Your task to perform on an android device: Search for logitech g910 on target.com, select the first entry, and add it to the cart. Image 0: 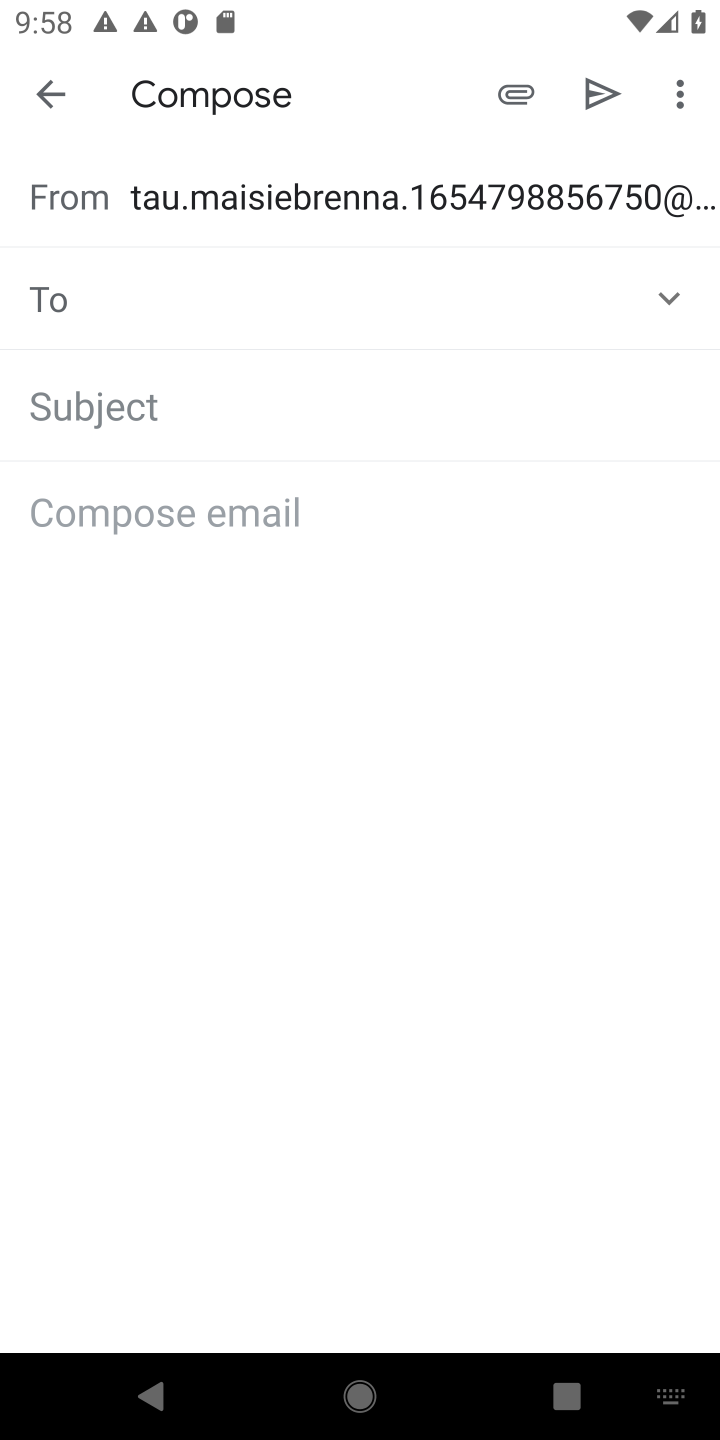
Step 0: press home button
Your task to perform on an android device: Search for logitech g910 on target.com, select the first entry, and add it to the cart. Image 1: 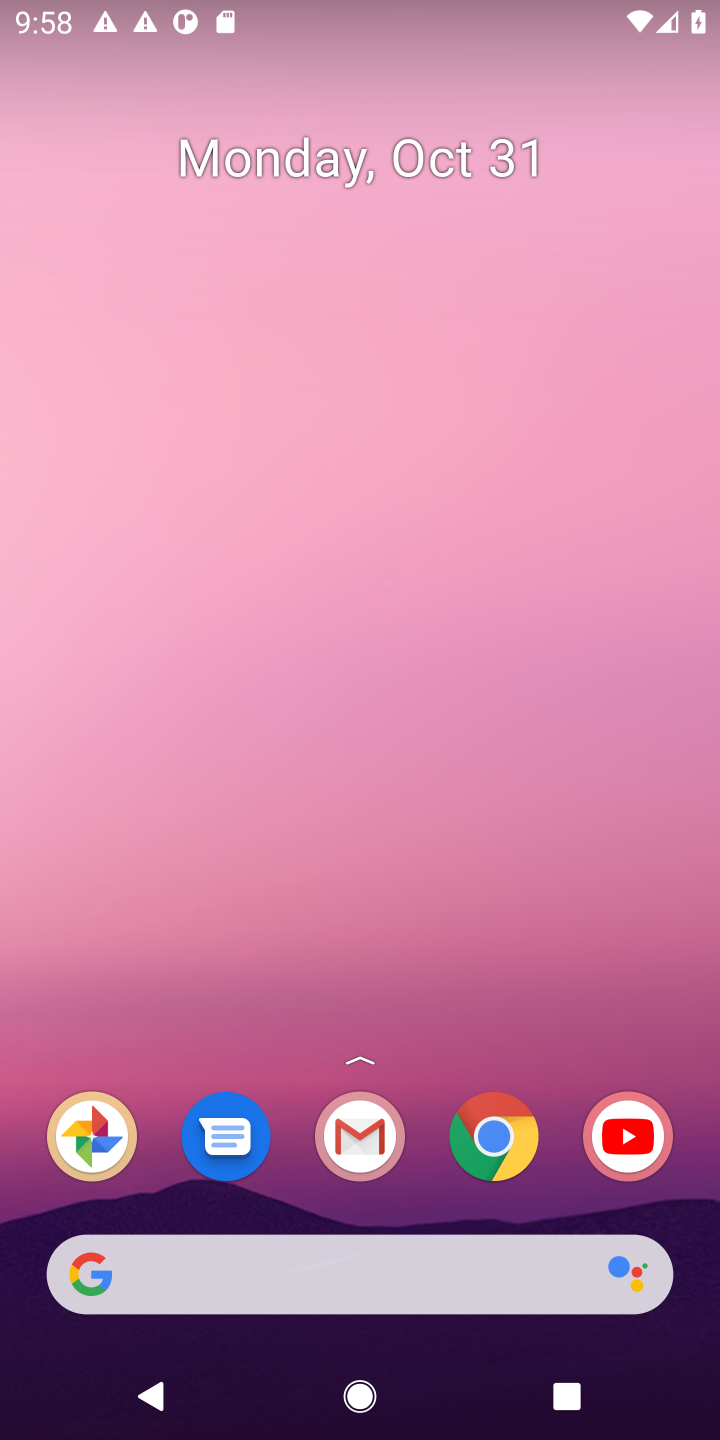
Step 1: click (150, 1269)
Your task to perform on an android device: Search for logitech g910 on target.com, select the first entry, and add it to the cart. Image 2: 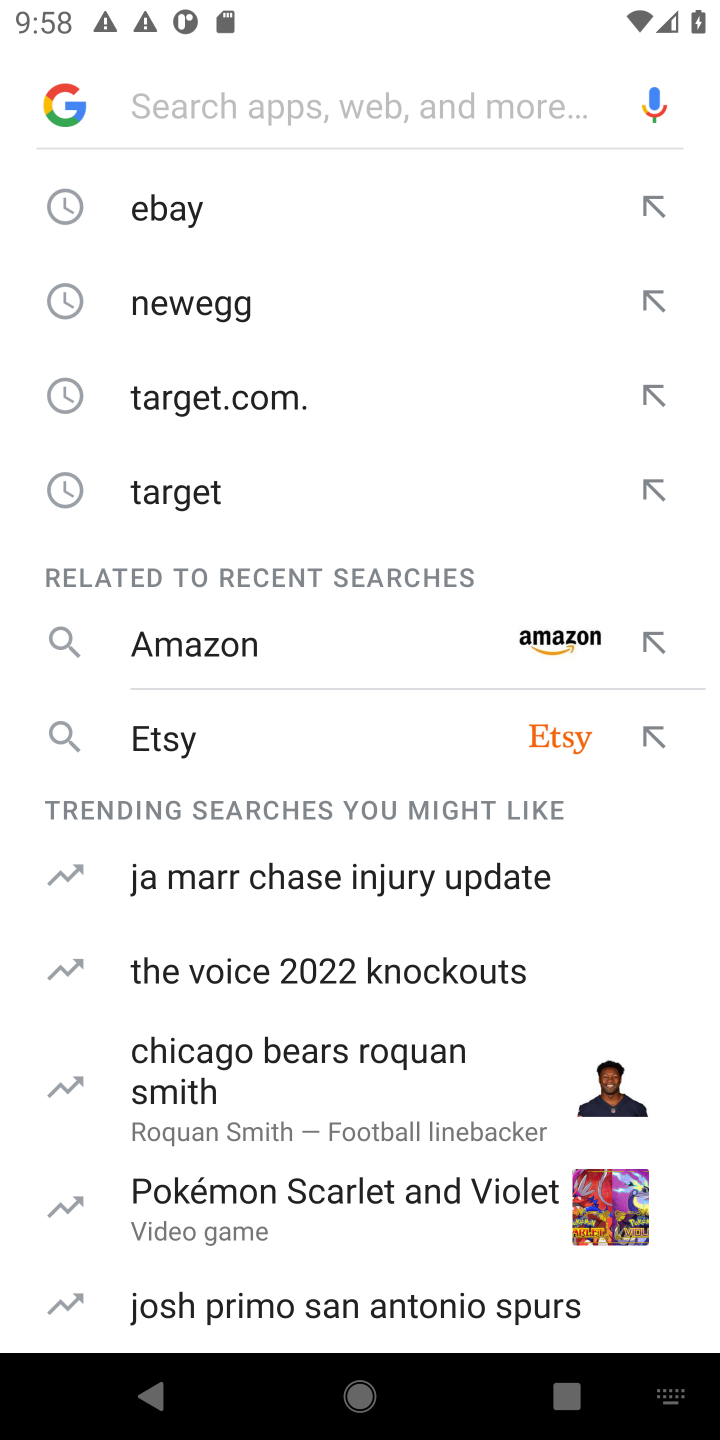
Step 2: type "target.com"
Your task to perform on an android device: Search for logitech g910 on target.com, select the first entry, and add it to the cart. Image 3: 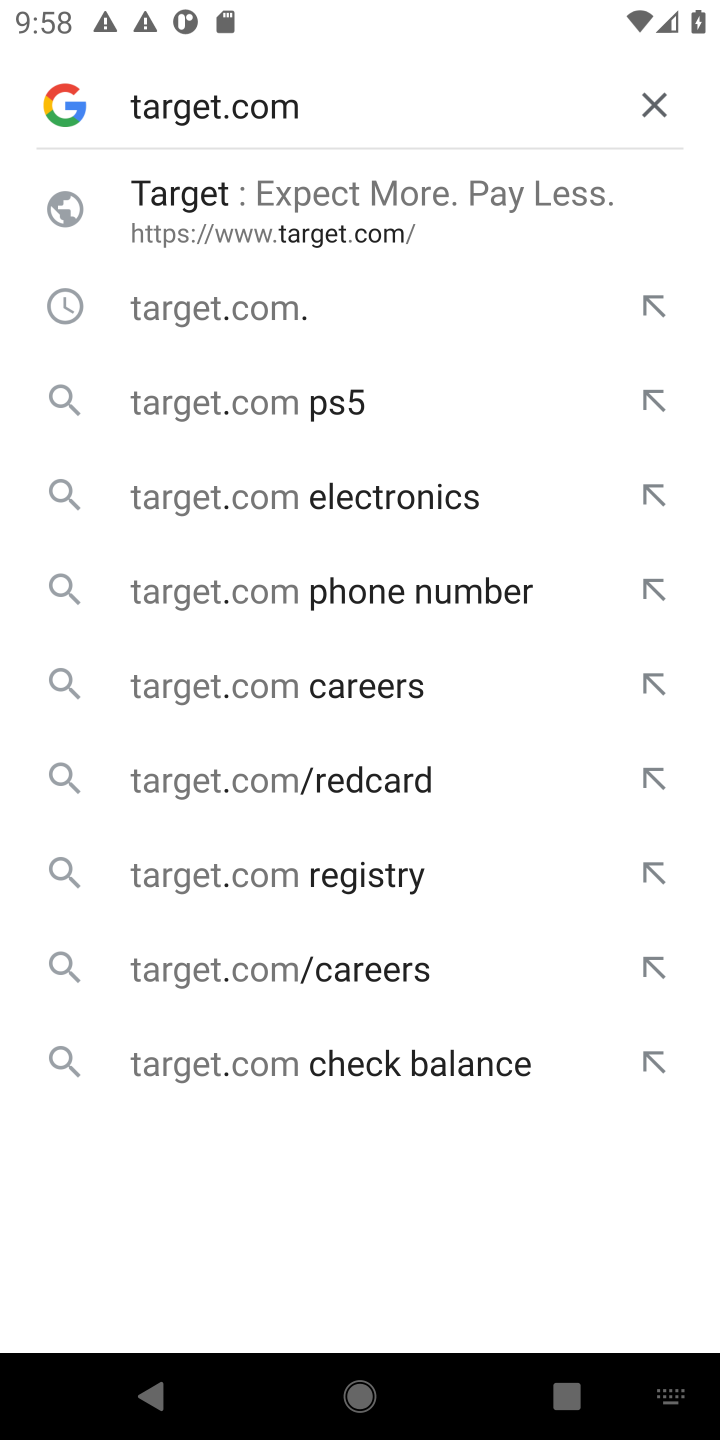
Step 3: press enter
Your task to perform on an android device: Search for logitech g910 on target.com, select the first entry, and add it to the cart. Image 4: 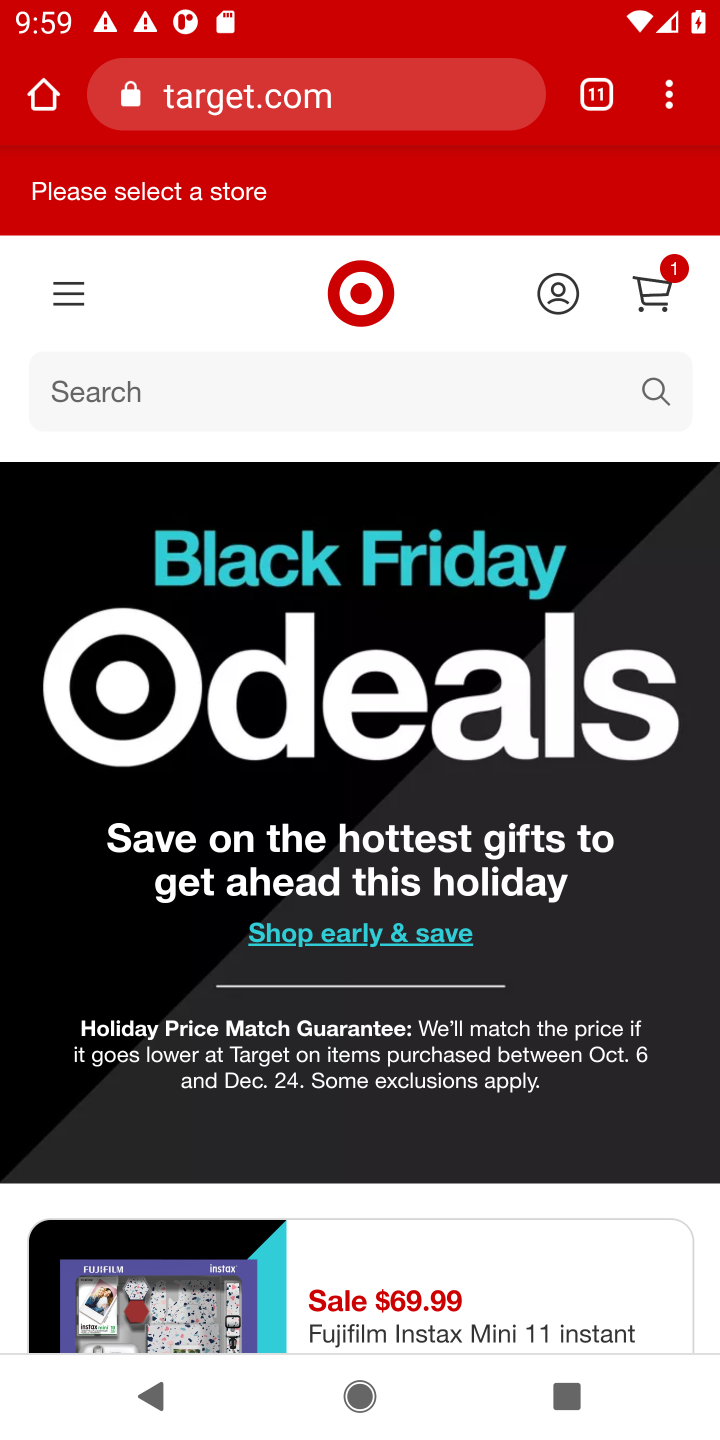
Step 4: click (120, 383)
Your task to perform on an android device: Search for logitech g910 on target.com, select the first entry, and add it to the cart. Image 5: 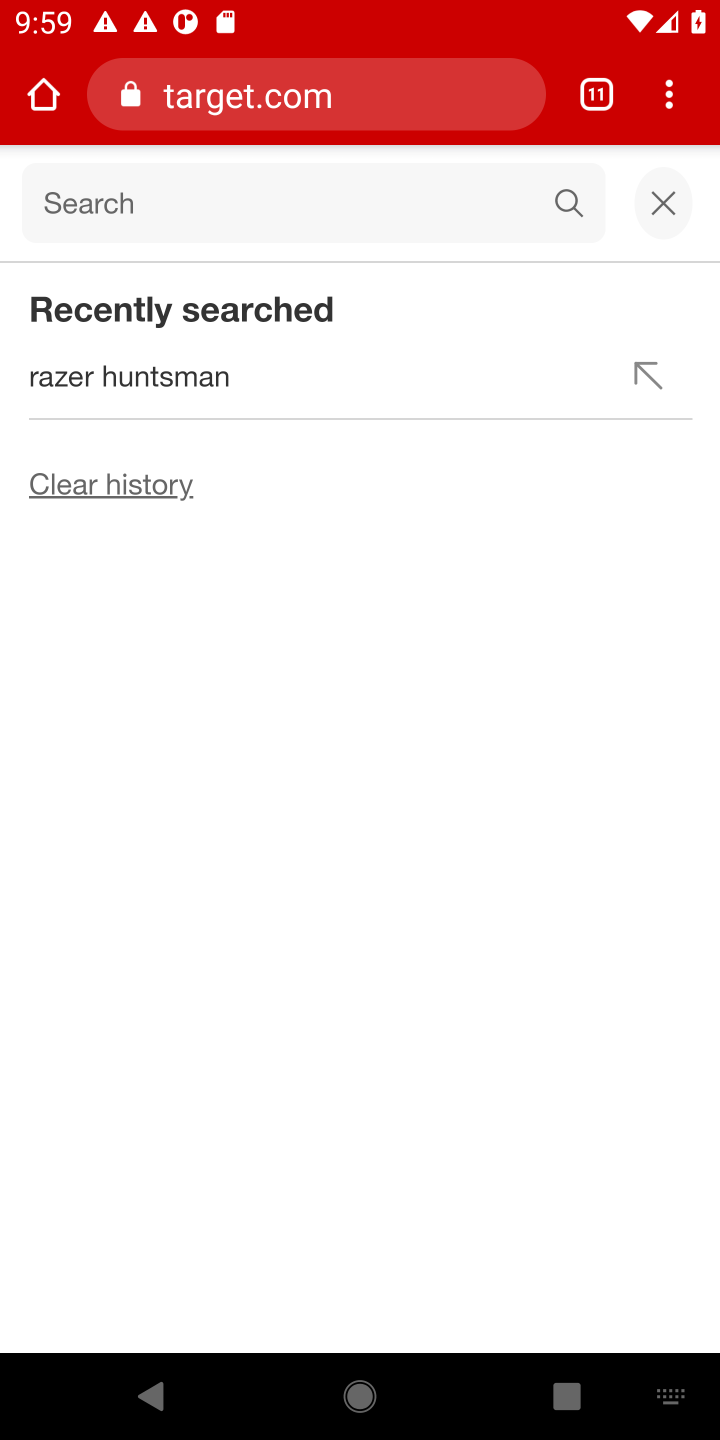
Step 5: type "logitech g910"
Your task to perform on an android device: Search for logitech g910 on target.com, select the first entry, and add it to the cart. Image 6: 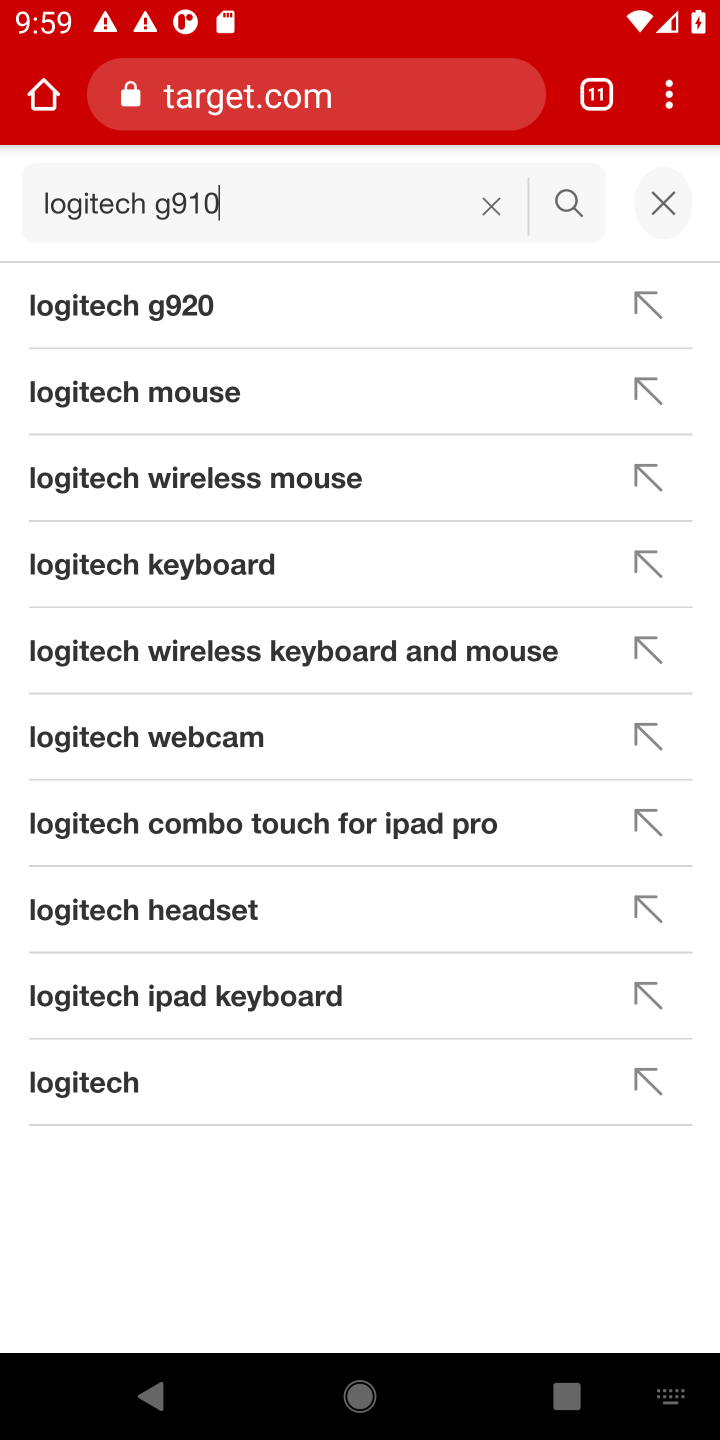
Step 6: click (567, 197)
Your task to perform on an android device: Search for logitech g910 on target.com, select the first entry, and add it to the cart. Image 7: 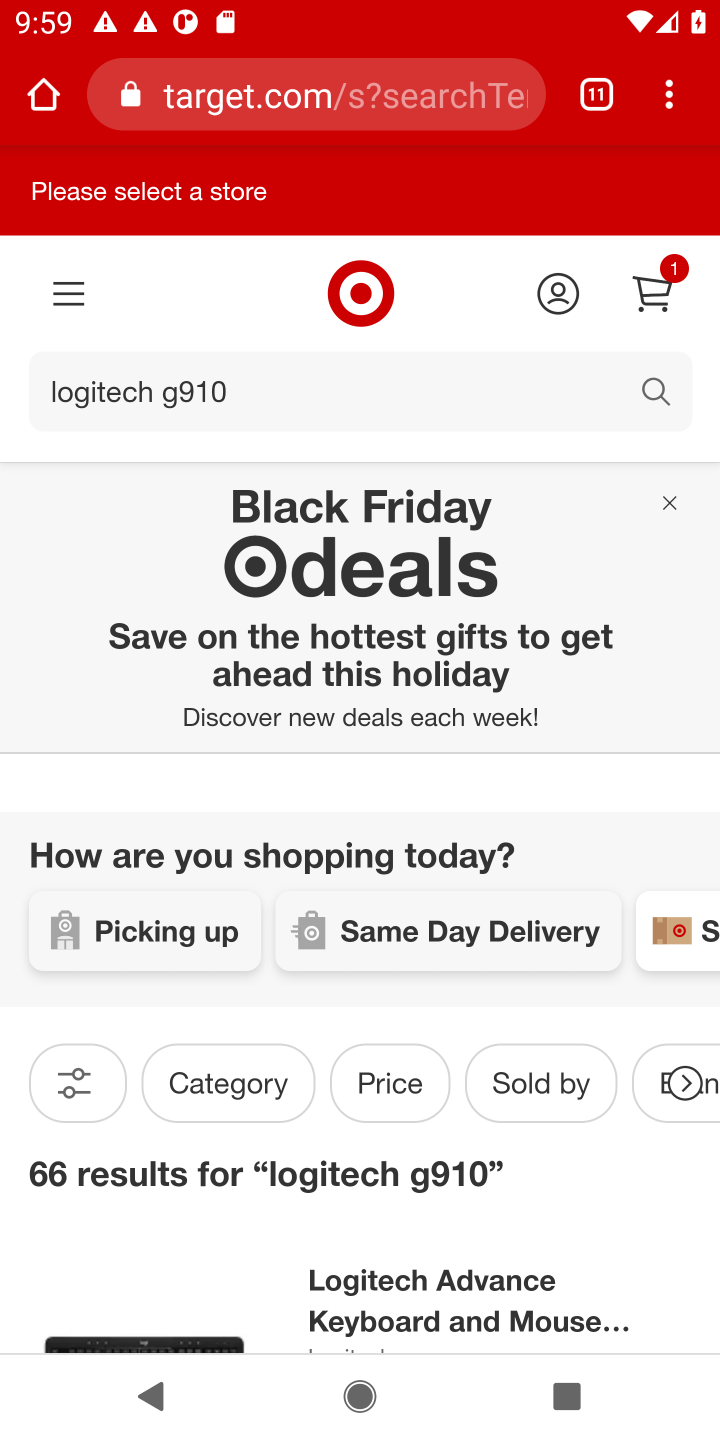
Step 7: task complete